Your task to perform on an android device: see tabs open on other devices in the chrome app Image 0: 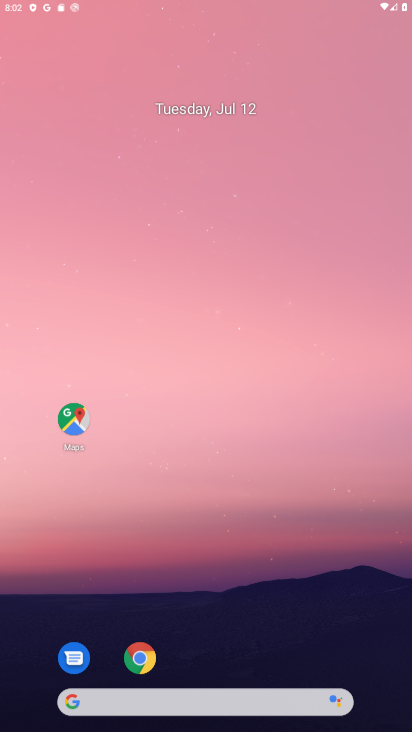
Step 0: click (325, 201)
Your task to perform on an android device: see tabs open on other devices in the chrome app Image 1: 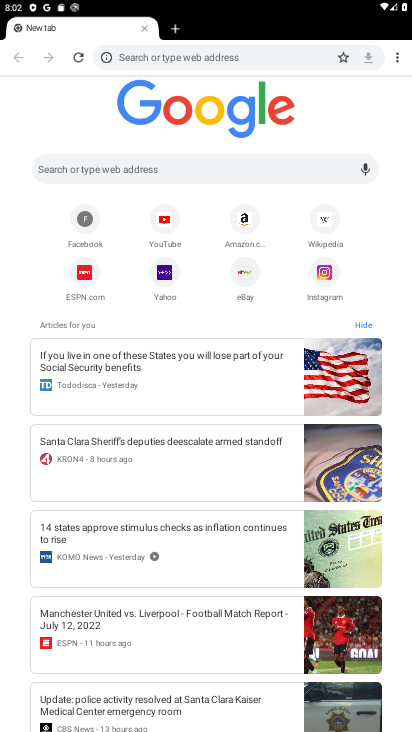
Step 1: click (390, 48)
Your task to perform on an android device: see tabs open on other devices in the chrome app Image 2: 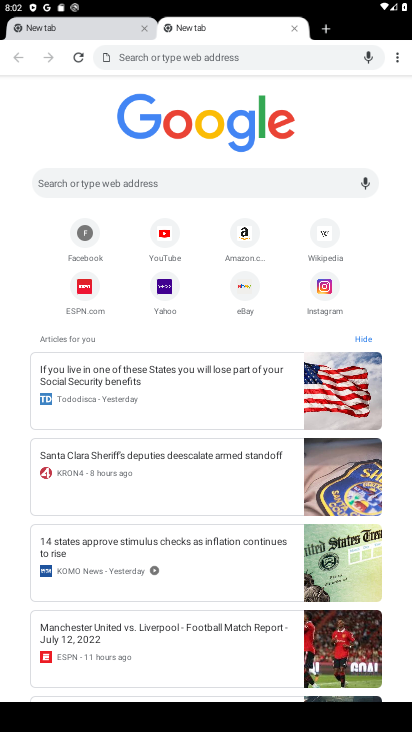
Step 2: drag from (393, 53) to (279, 143)
Your task to perform on an android device: see tabs open on other devices in the chrome app Image 3: 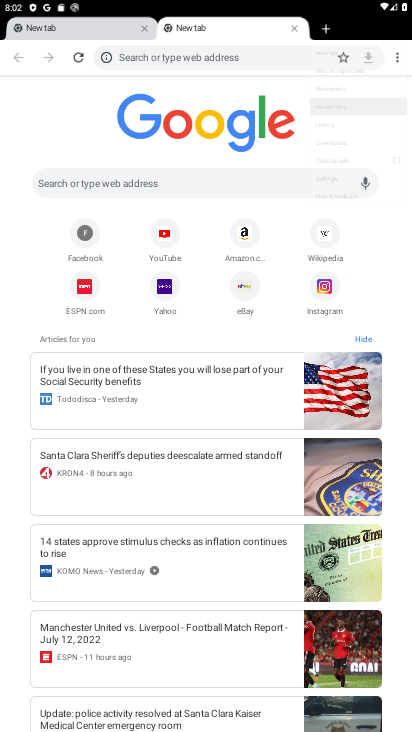
Step 3: click (279, 142)
Your task to perform on an android device: see tabs open on other devices in the chrome app Image 4: 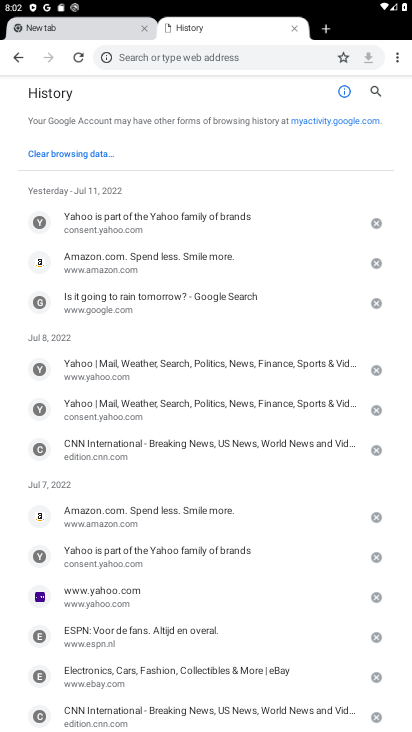
Step 4: task complete